Your task to perform on an android device: Search for Italian restaurants on Maps Image 0: 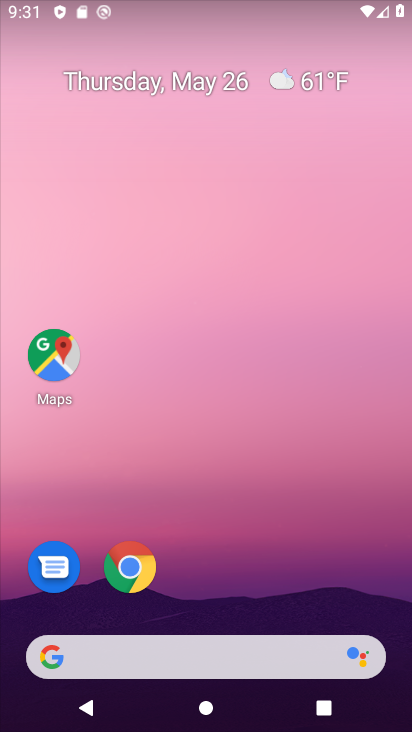
Step 0: click (66, 366)
Your task to perform on an android device: Search for Italian restaurants on Maps Image 1: 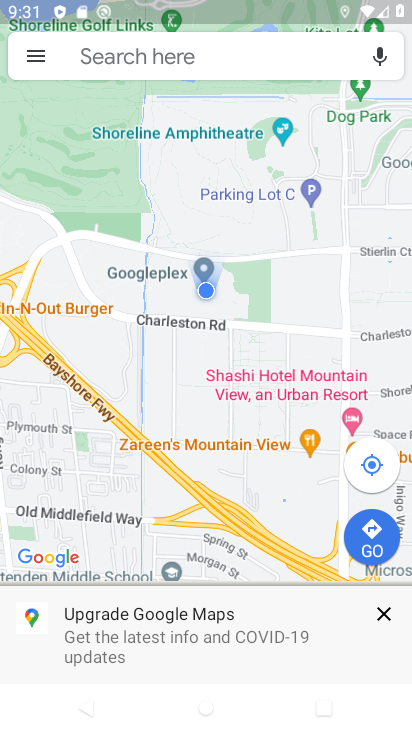
Step 1: drag from (66, 366) to (100, 227)
Your task to perform on an android device: Search for Italian restaurants on Maps Image 2: 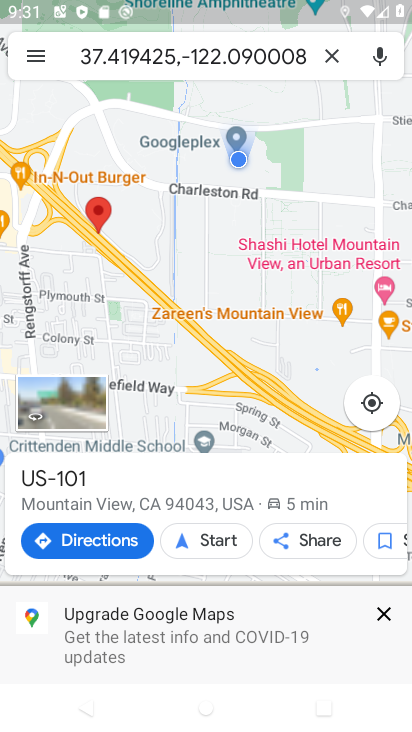
Step 2: click (340, 51)
Your task to perform on an android device: Search for Italian restaurants on Maps Image 3: 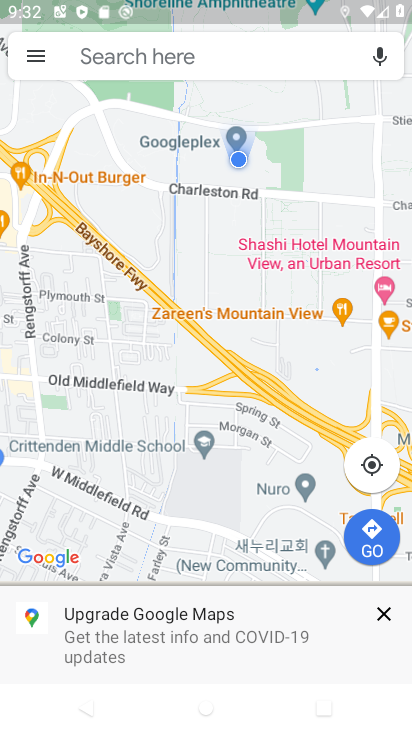
Step 3: click (263, 48)
Your task to perform on an android device: Search for Italian restaurants on Maps Image 4: 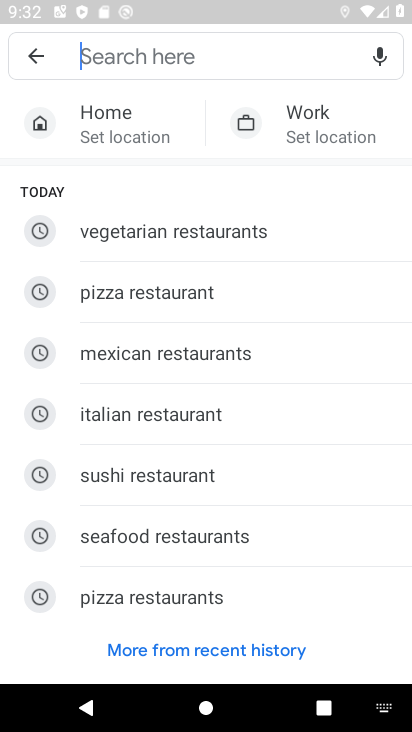
Step 4: click (159, 422)
Your task to perform on an android device: Search for Italian restaurants on Maps Image 5: 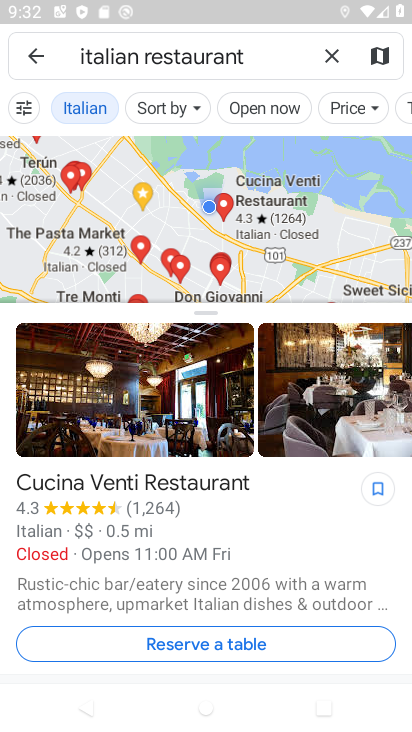
Step 5: task complete